Your task to perform on an android device: Go to battery settings Image 0: 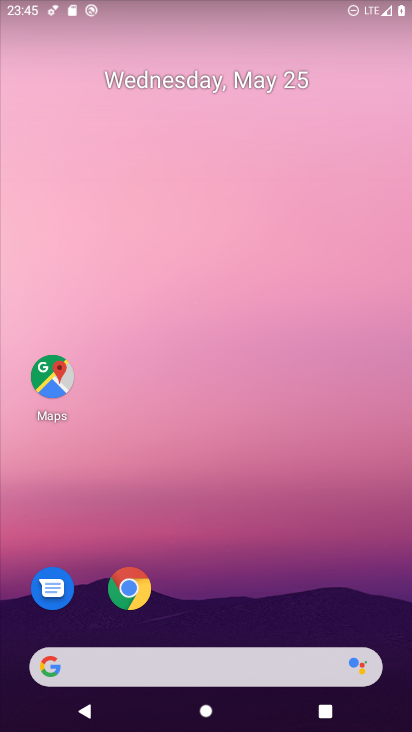
Step 0: drag from (239, 533) to (399, 87)
Your task to perform on an android device: Go to battery settings Image 1: 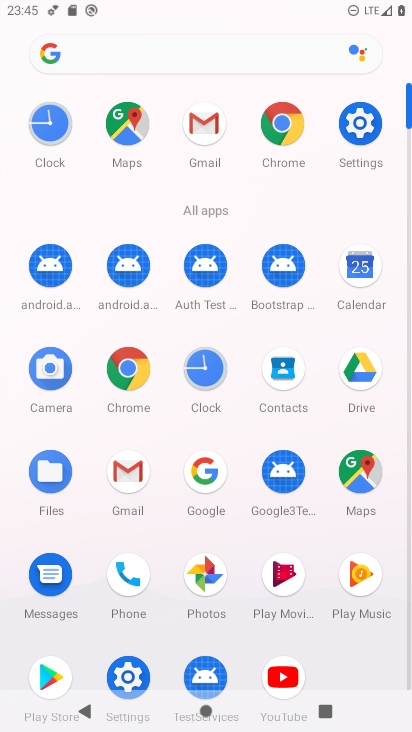
Step 1: click (360, 122)
Your task to perform on an android device: Go to battery settings Image 2: 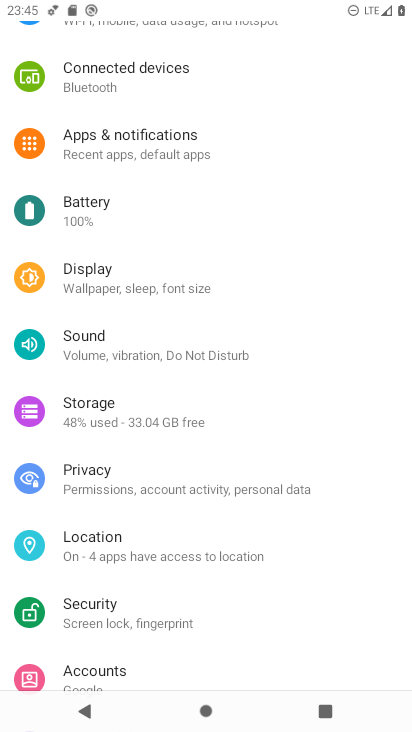
Step 2: click (81, 213)
Your task to perform on an android device: Go to battery settings Image 3: 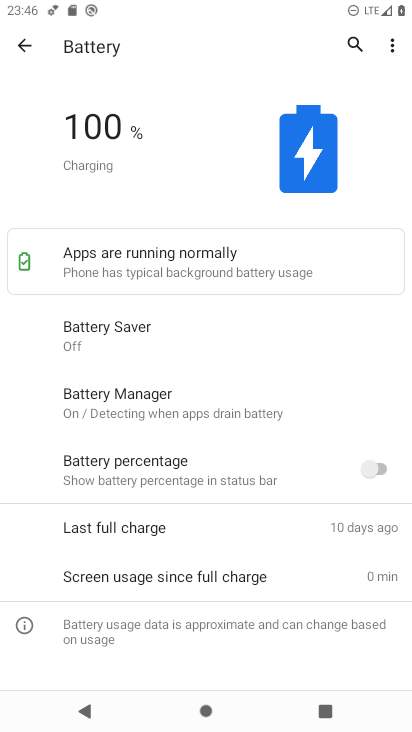
Step 3: task complete